Your task to perform on an android device: snooze an email in the gmail app Image 0: 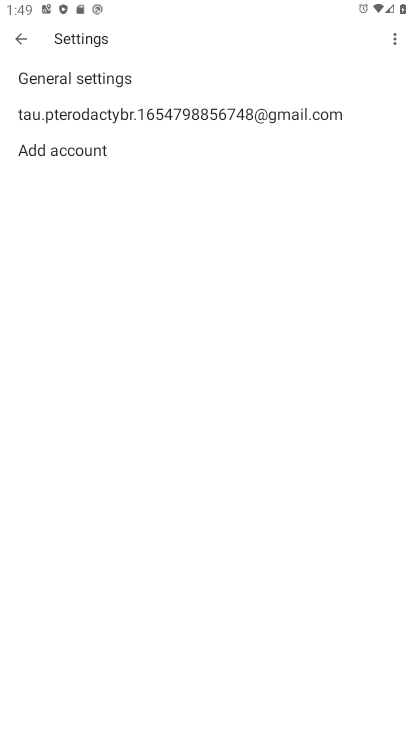
Step 0: press home button
Your task to perform on an android device: snooze an email in the gmail app Image 1: 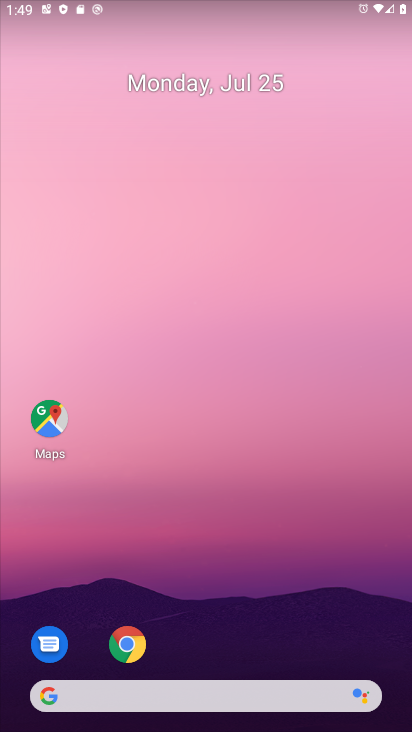
Step 1: drag from (375, 626) to (106, 36)
Your task to perform on an android device: snooze an email in the gmail app Image 2: 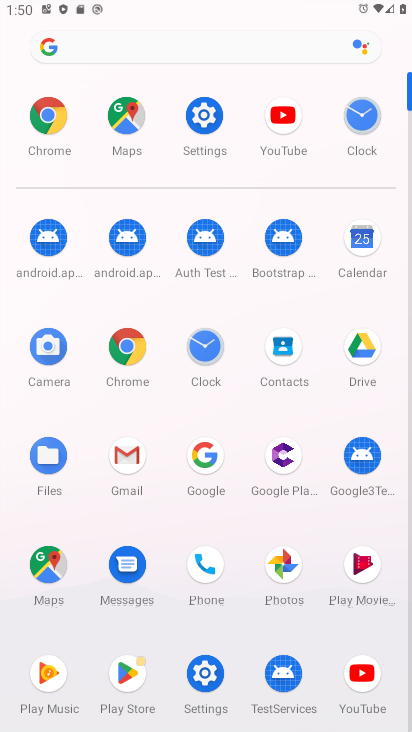
Step 2: click (134, 455)
Your task to perform on an android device: snooze an email in the gmail app Image 3: 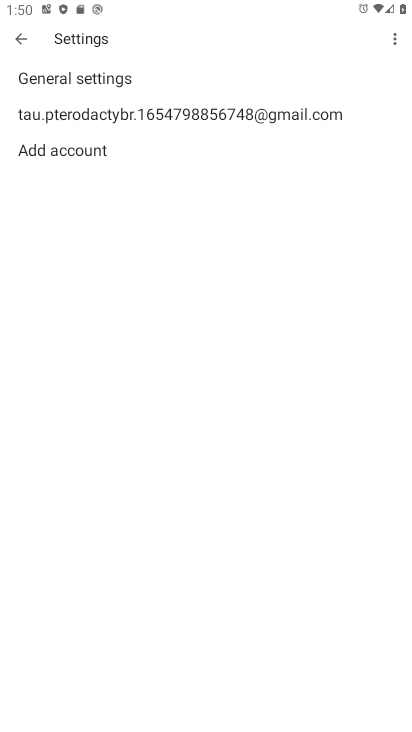
Step 3: press back button
Your task to perform on an android device: snooze an email in the gmail app Image 4: 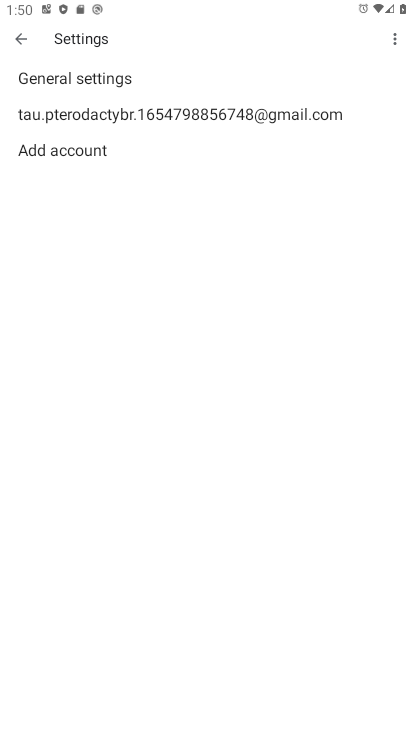
Step 4: press back button
Your task to perform on an android device: snooze an email in the gmail app Image 5: 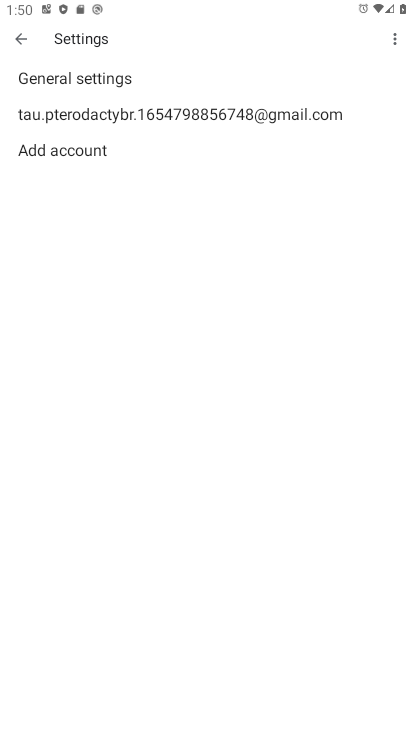
Step 5: press back button
Your task to perform on an android device: snooze an email in the gmail app Image 6: 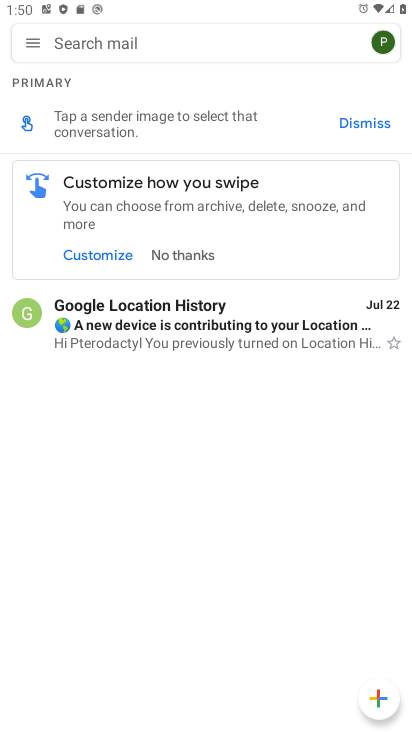
Step 6: click (33, 36)
Your task to perform on an android device: snooze an email in the gmail app Image 7: 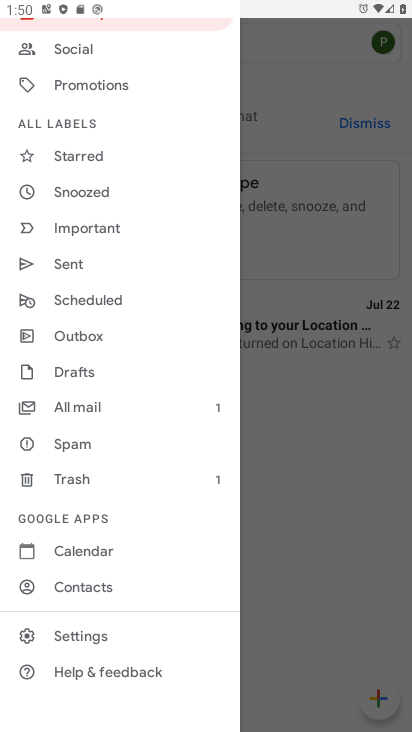
Step 7: click (94, 194)
Your task to perform on an android device: snooze an email in the gmail app Image 8: 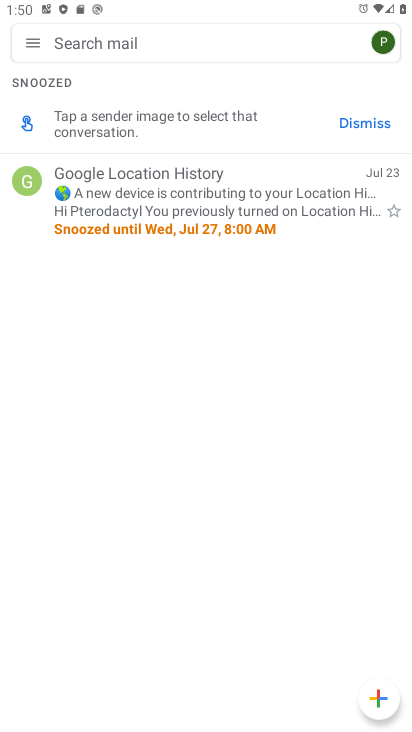
Step 8: task complete